Your task to perform on an android device: show emergency info Image 0: 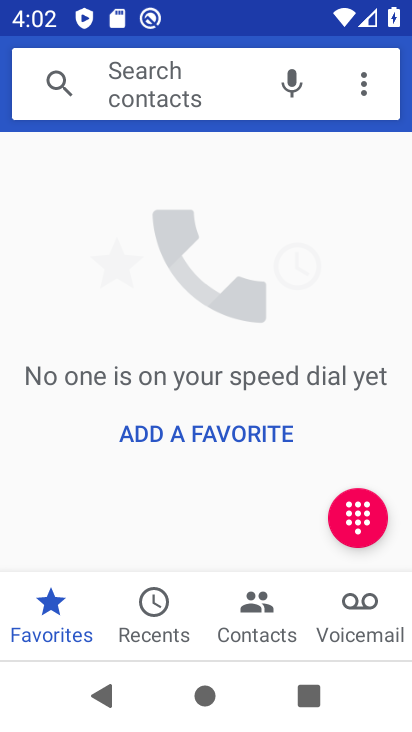
Step 0: click (310, 404)
Your task to perform on an android device: show emergency info Image 1: 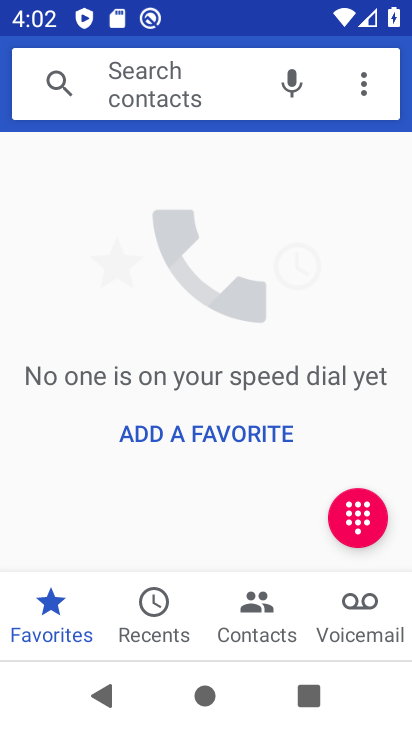
Step 1: press home button
Your task to perform on an android device: show emergency info Image 2: 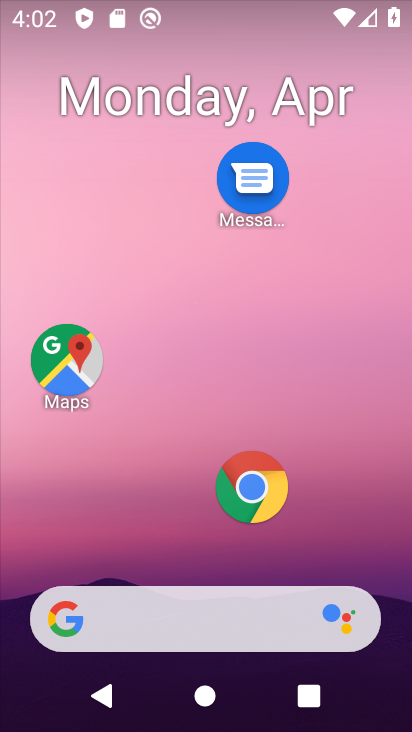
Step 2: drag from (170, 539) to (277, 109)
Your task to perform on an android device: show emergency info Image 3: 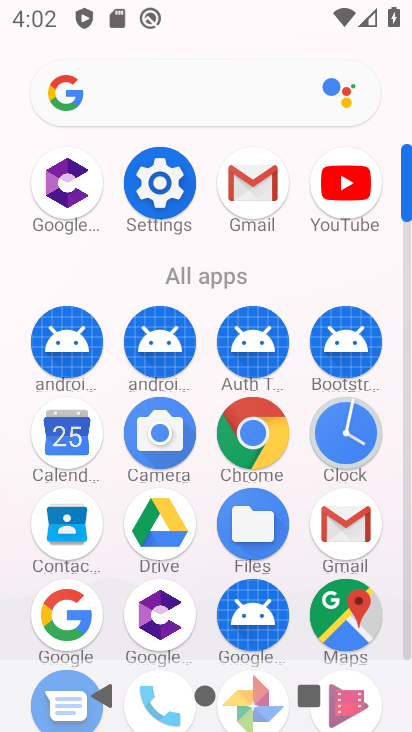
Step 3: click (168, 194)
Your task to perform on an android device: show emergency info Image 4: 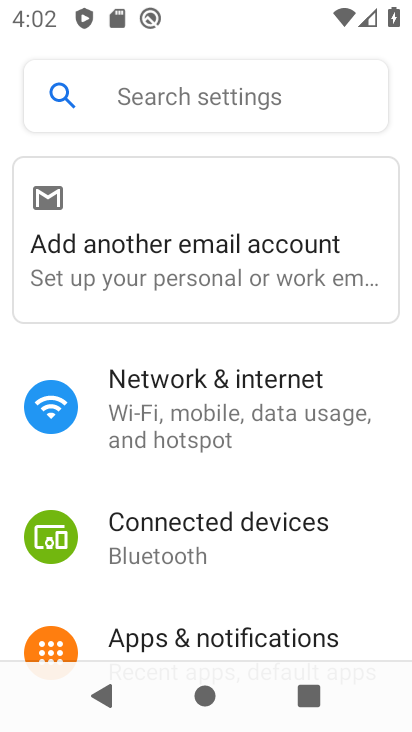
Step 4: drag from (211, 517) to (397, 50)
Your task to perform on an android device: show emergency info Image 5: 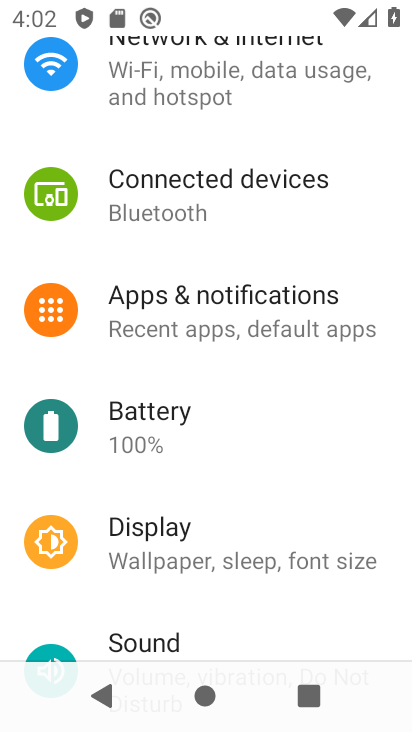
Step 5: drag from (247, 605) to (396, 7)
Your task to perform on an android device: show emergency info Image 6: 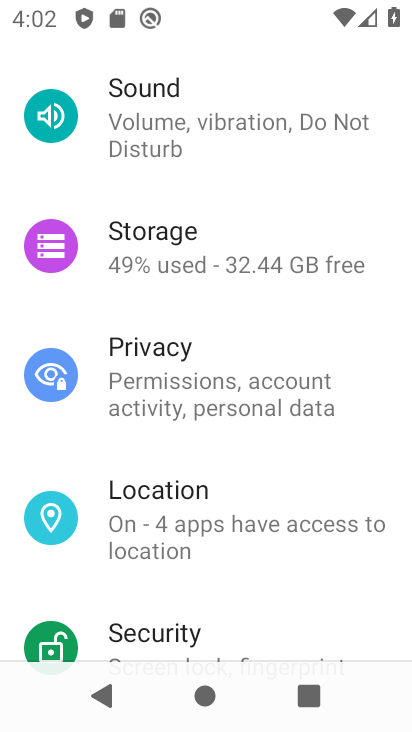
Step 6: drag from (237, 539) to (353, 29)
Your task to perform on an android device: show emergency info Image 7: 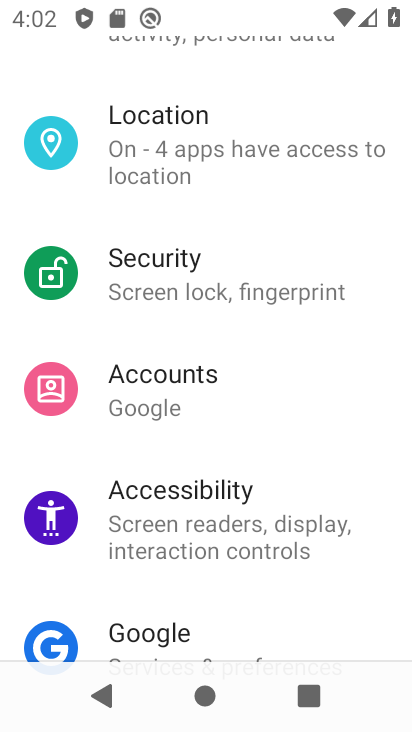
Step 7: drag from (232, 543) to (376, 3)
Your task to perform on an android device: show emergency info Image 8: 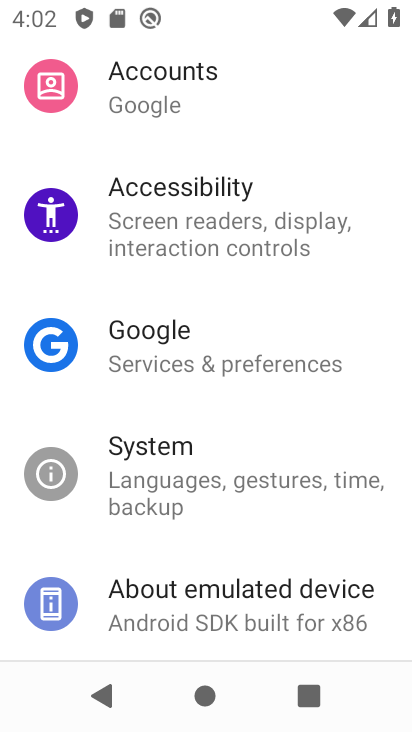
Step 8: click (167, 575)
Your task to perform on an android device: show emergency info Image 9: 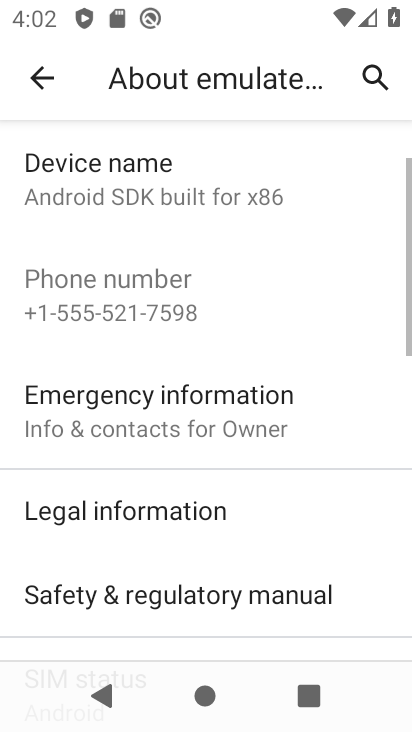
Step 9: click (190, 394)
Your task to perform on an android device: show emergency info Image 10: 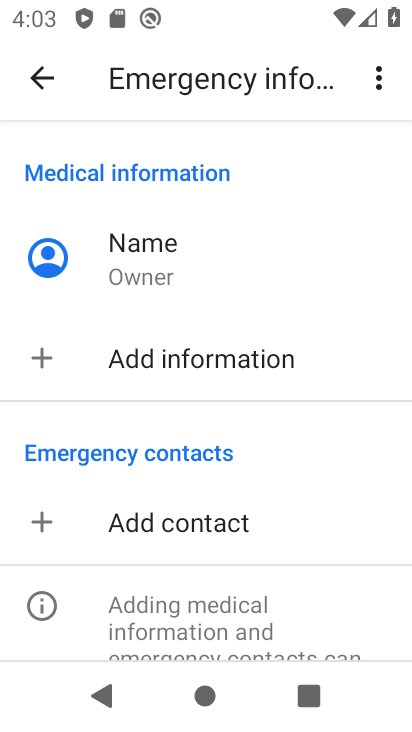
Step 10: task complete